Your task to perform on an android device: check storage Image 0: 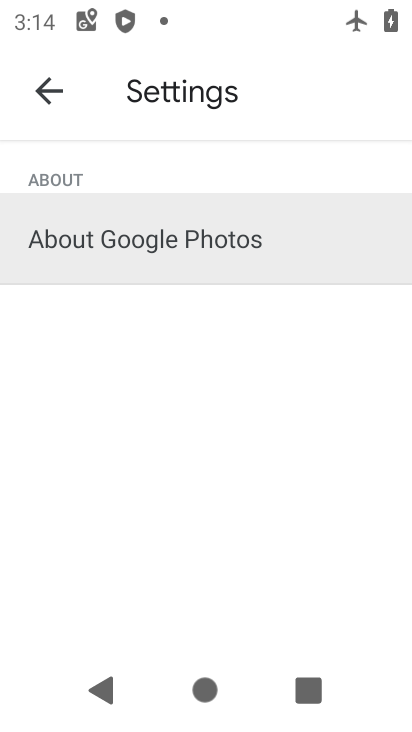
Step 0: press home button
Your task to perform on an android device: check storage Image 1: 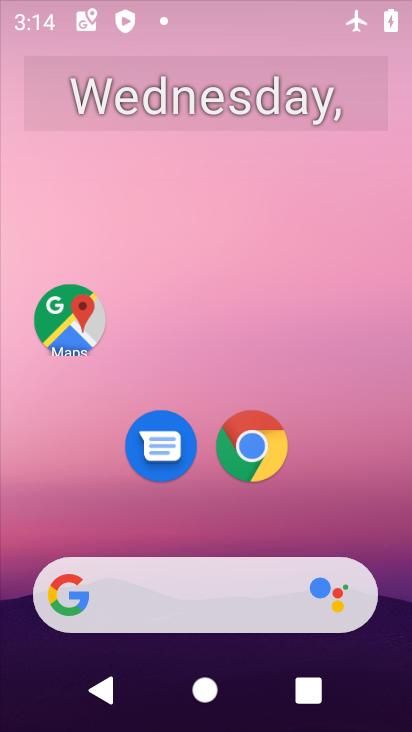
Step 1: drag from (204, 515) to (208, 98)
Your task to perform on an android device: check storage Image 2: 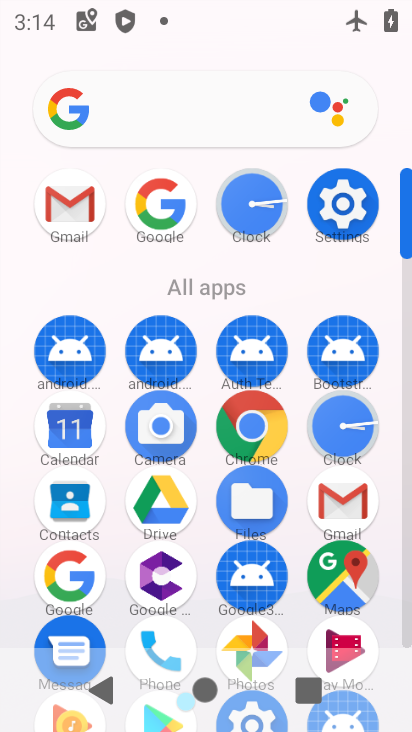
Step 2: click (351, 201)
Your task to perform on an android device: check storage Image 3: 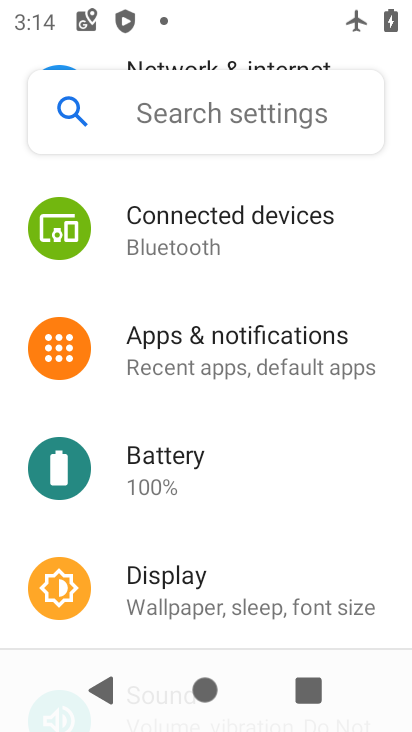
Step 3: drag from (225, 543) to (253, 70)
Your task to perform on an android device: check storage Image 4: 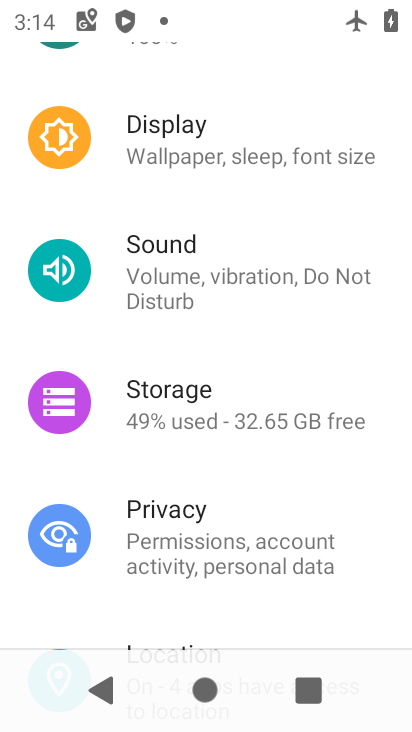
Step 4: click (175, 404)
Your task to perform on an android device: check storage Image 5: 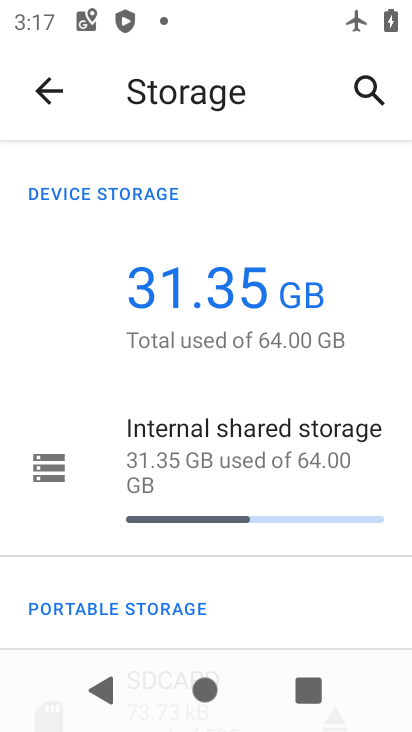
Step 5: task complete